Your task to perform on an android device: turn off wifi Image 0: 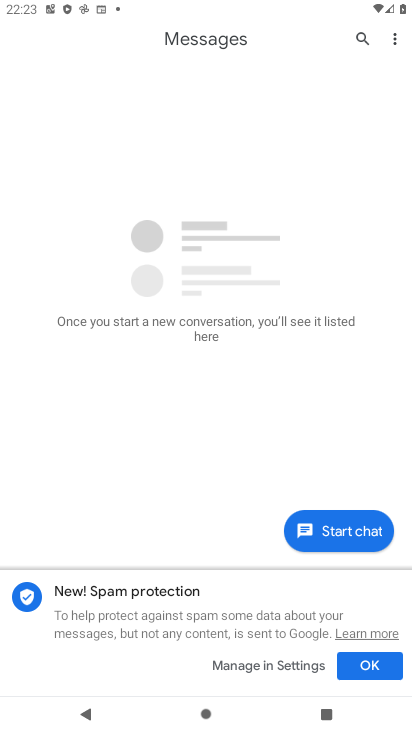
Step 0: press home button
Your task to perform on an android device: turn off wifi Image 1: 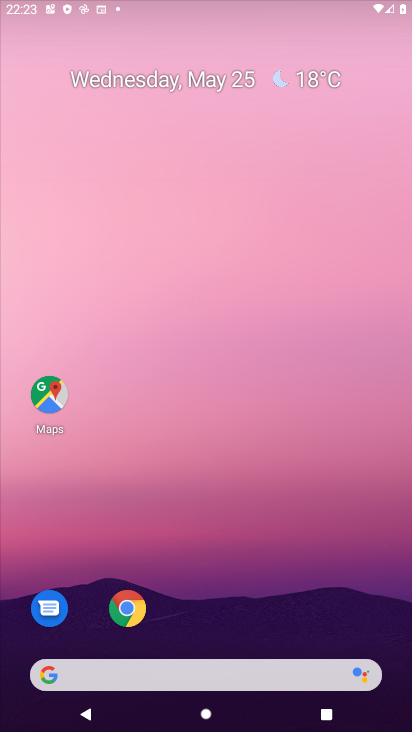
Step 1: drag from (298, 417) to (209, 9)
Your task to perform on an android device: turn off wifi Image 2: 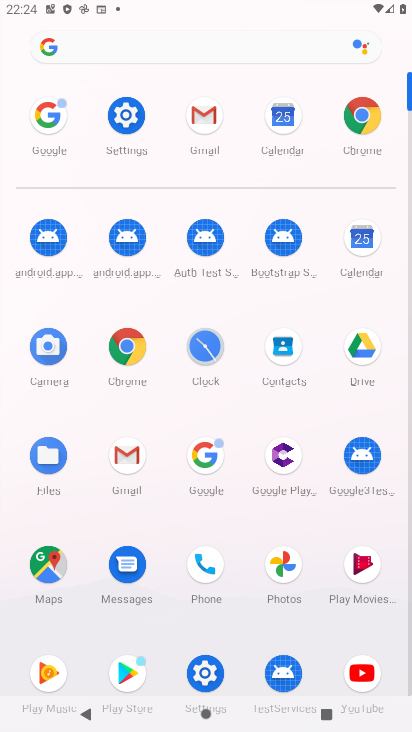
Step 2: click (132, 114)
Your task to perform on an android device: turn off wifi Image 3: 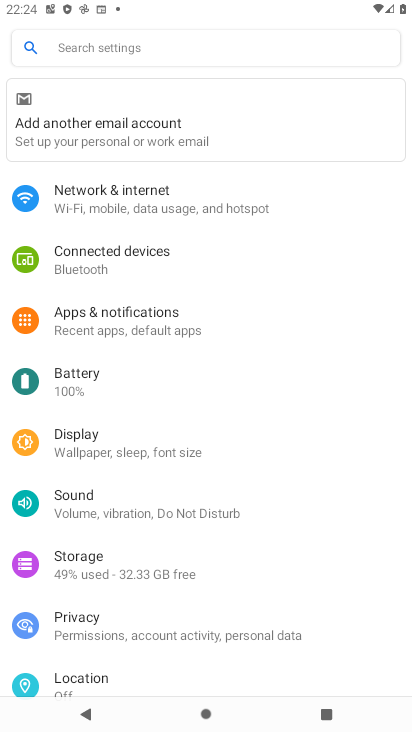
Step 3: click (161, 197)
Your task to perform on an android device: turn off wifi Image 4: 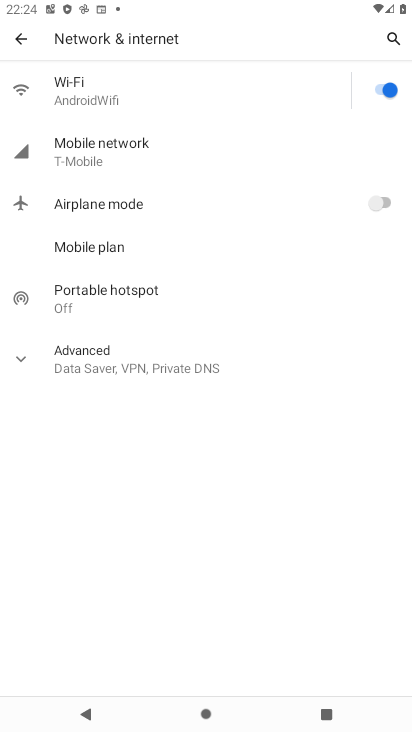
Step 4: click (102, 103)
Your task to perform on an android device: turn off wifi Image 5: 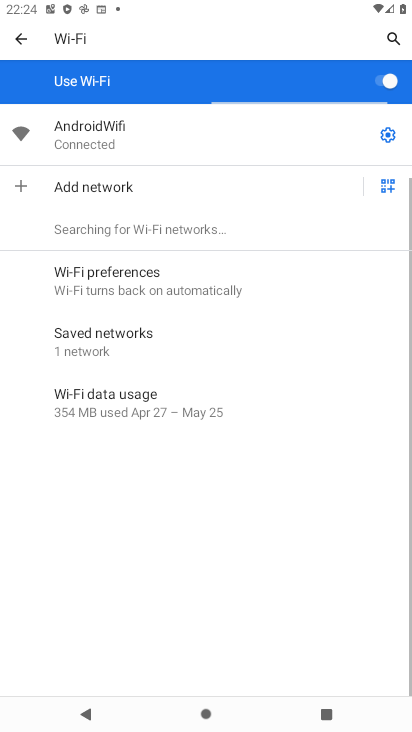
Step 5: click (393, 81)
Your task to perform on an android device: turn off wifi Image 6: 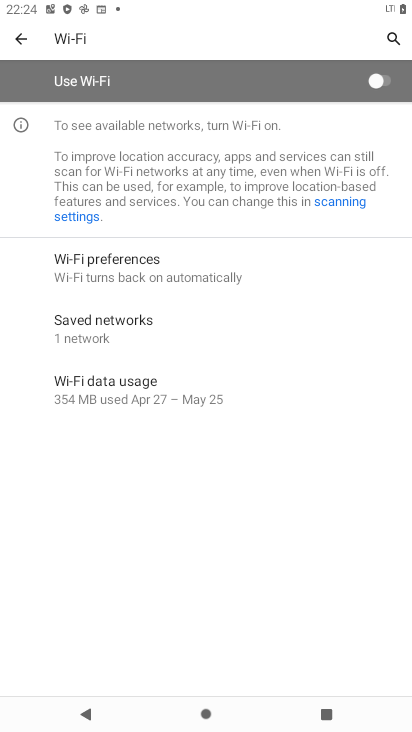
Step 6: task complete